Your task to perform on an android device: change the clock display to analog Image 0: 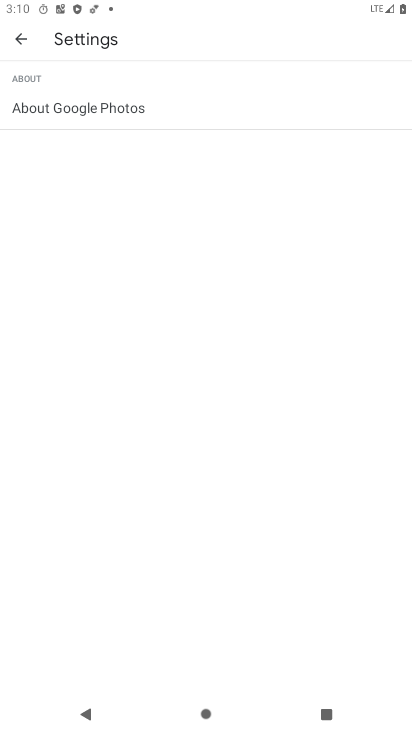
Step 0: press home button
Your task to perform on an android device: change the clock display to analog Image 1: 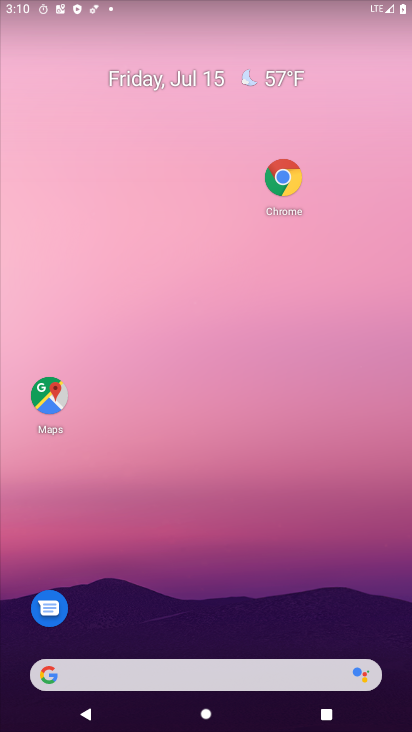
Step 1: drag from (184, 377) to (201, 2)
Your task to perform on an android device: change the clock display to analog Image 2: 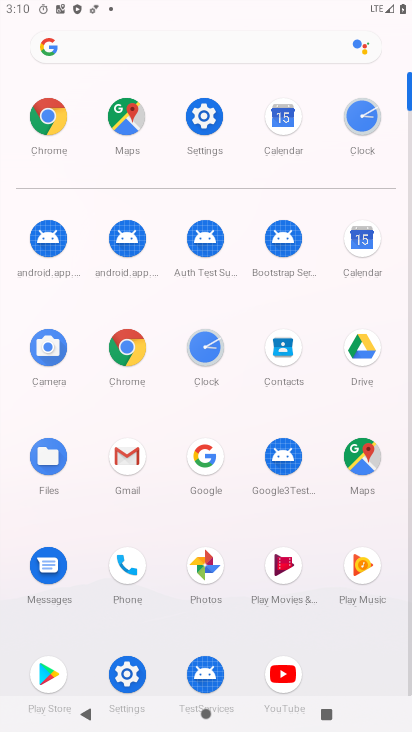
Step 2: click (190, 345)
Your task to perform on an android device: change the clock display to analog Image 3: 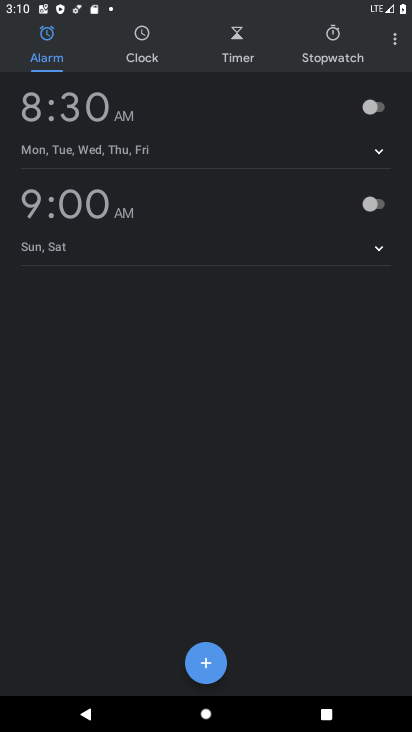
Step 3: click (389, 42)
Your task to perform on an android device: change the clock display to analog Image 4: 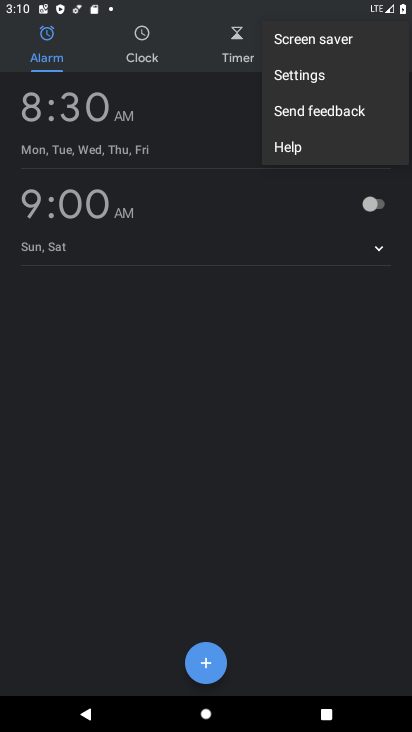
Step 4: click (315, 80)
Your task to perform on an android device: change the clock display to analog Image 5: 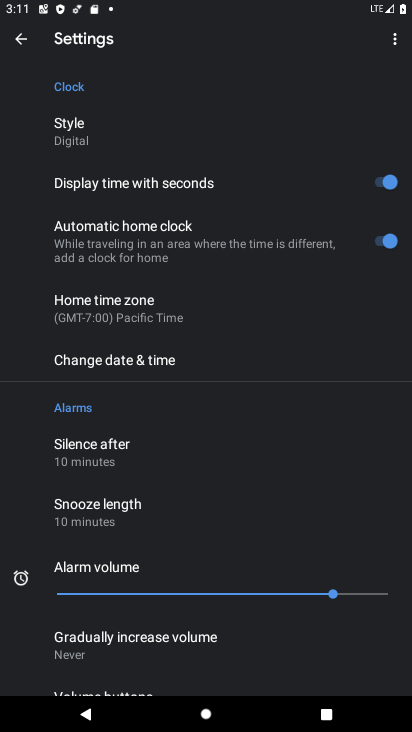
Step 5: click (80, 144)
Your task to perform on an android device: change the clock display to analog Image 6: 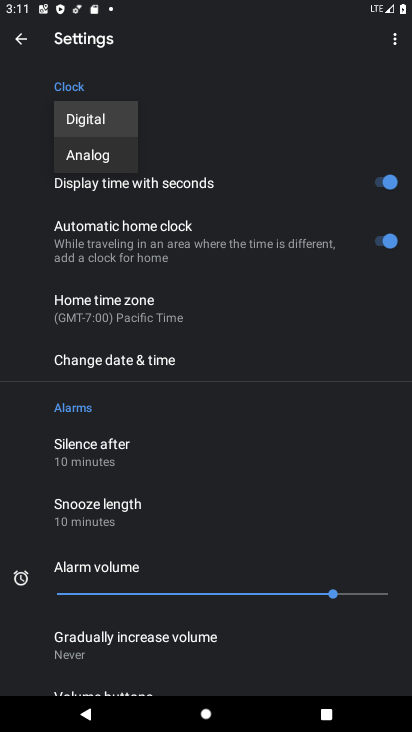
Step 6: click (100, 153)
Your task to perform on an android device: change the clock display to analog Image 7: 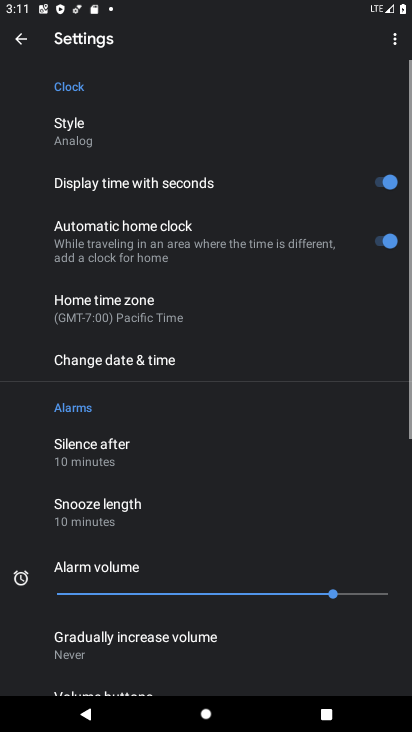
Step 7: task complete